Your task to perform on an android device: Open settings on Google Maps Image 0: 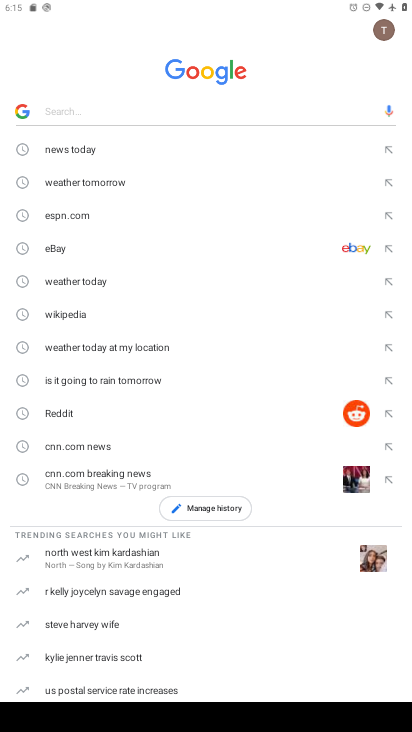
Step 0: press home button
Your task to perform on an android device: Open settings on Google Maps Image 1: 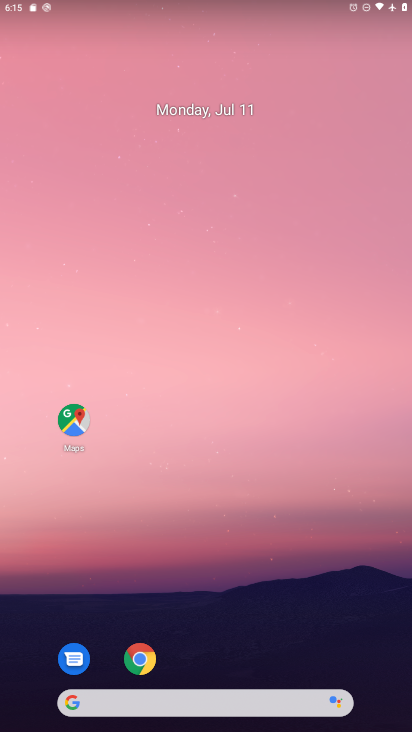
Step 1: click (75, 419)
Your task to perform on an android device: Open settings on Google Maps Image 2: 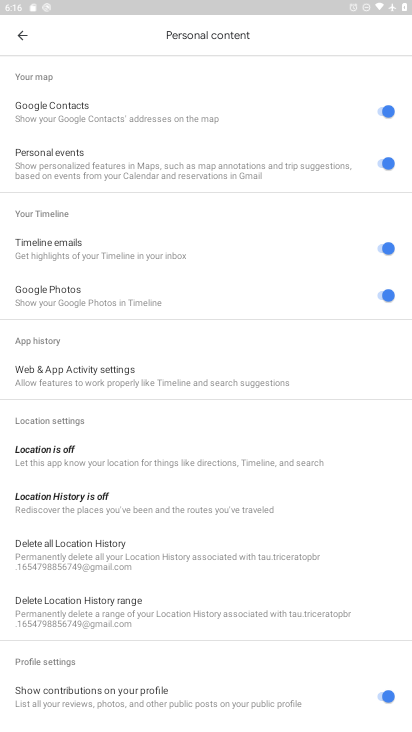
Step 2: task complete